Your task to perform on an android device: remove spam from my inbox in the gmail app Image 0: 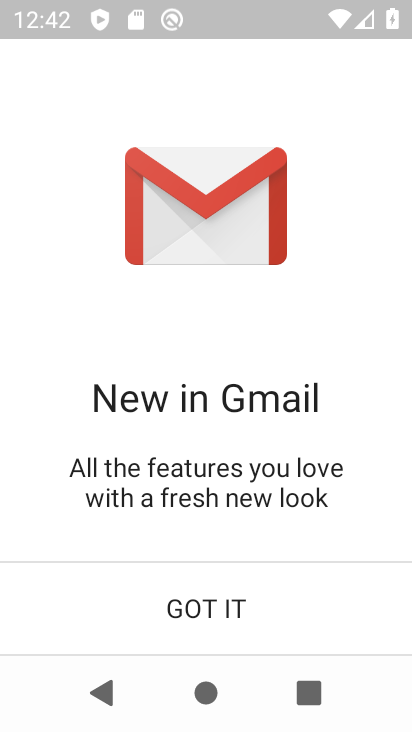
Step 0: click (269, 627)
Your task to perform on an android device: remove spam from my inbox in the gmail app Image 1: 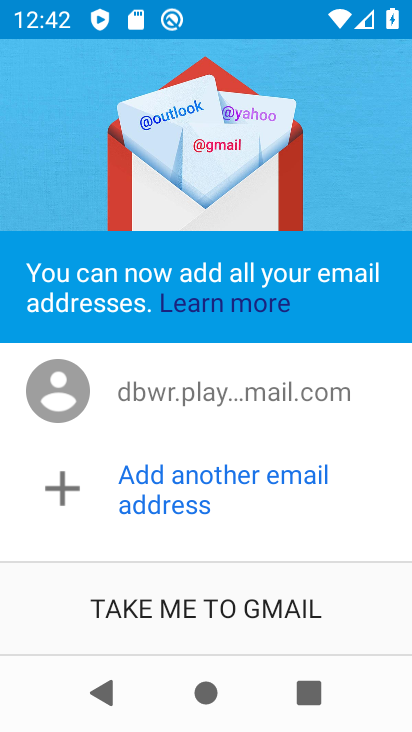
Step 1: click (261, 625)
Your task to perform on an android device: remove spam from my inbox in the gmail app Image 2: 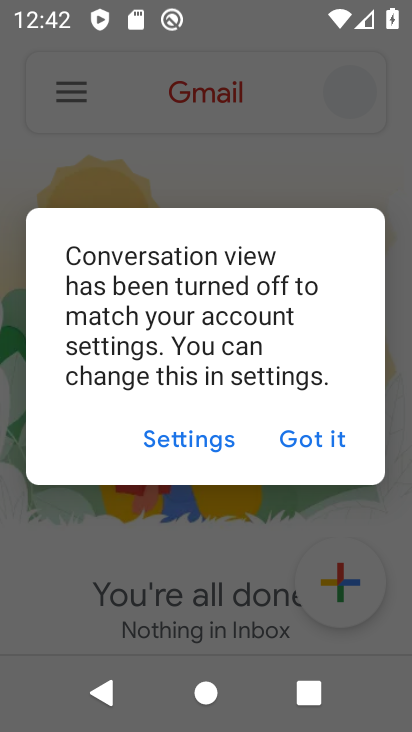
Step 2: click (315, 452)
Your task to perform on an android device: remove spam from my inbox in the gmail app Image 3: 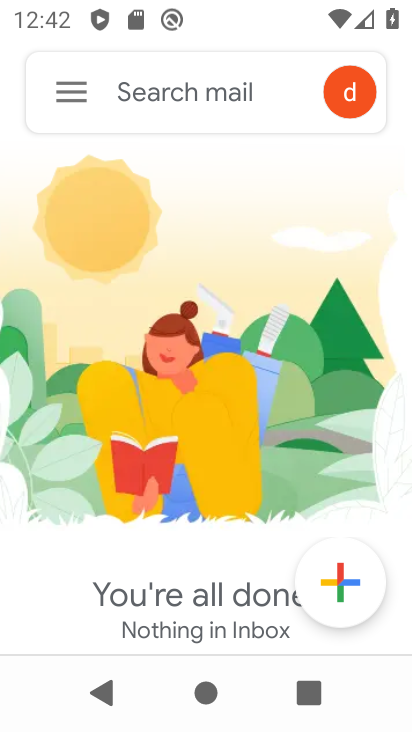
Step 3: click (78, 110)
Your task to perform on an android device: remove spam from my inbox in the gmail app Image 4: 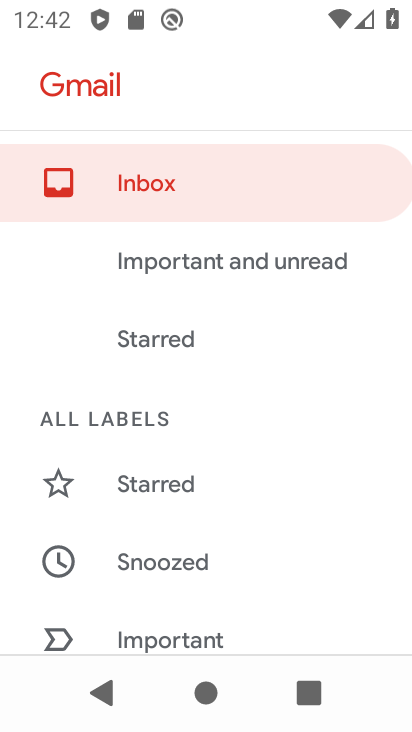
Step 4: drag from (227, 590) to (351, 274)
Your task to perform on an android device: remove spam from my inbox in the gmail app Image 5: 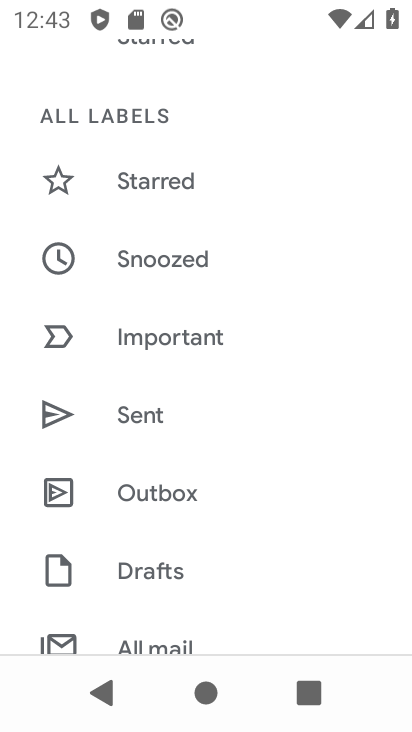
Step 5: drag from (201, 551) to (301, 275)
Your task to perform on an android device: remove spam from my inbox in the gmail app Image 6: 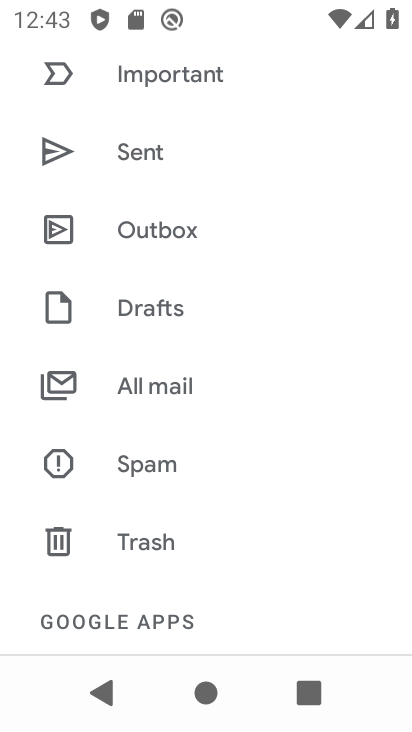
Step 6: click (190, 468)
Your task to perform on an android device: remove spam from my inbox in the gmail app Image 7: 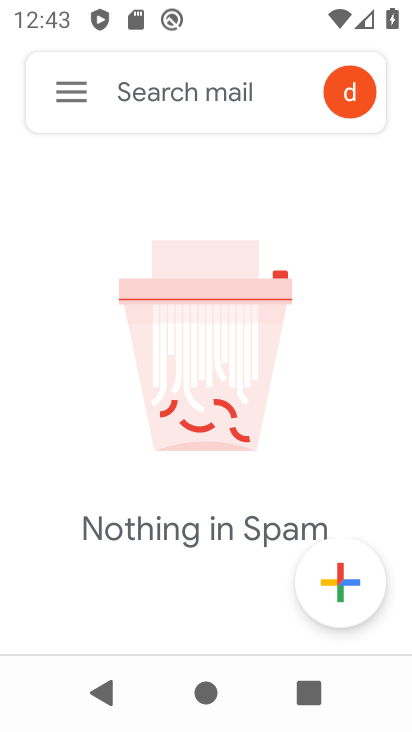
Step 7: task complete